Your task to perform on an android device: turn off javascript in the chrome app Image 0: 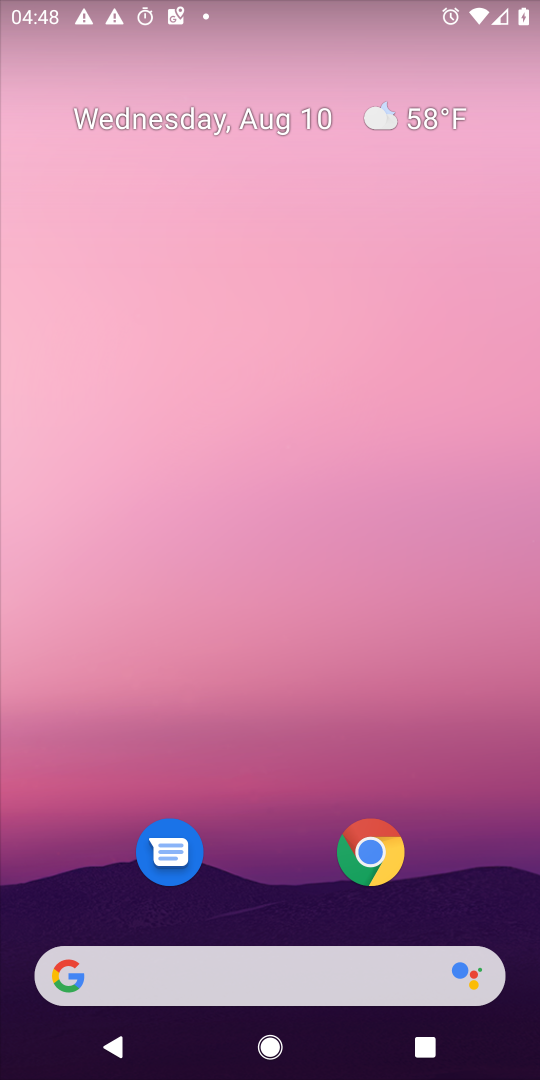
Step 0: drag from (300, 867) to (51, 289)
Your task to perform on an android device: turn off javascript in the chrome app Image 1: 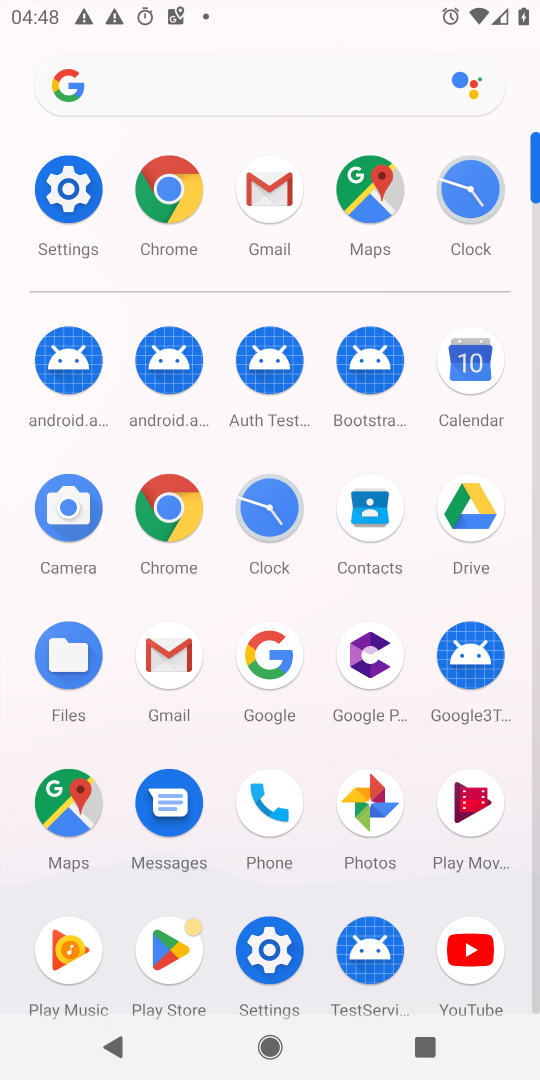
Step 1: click (153, 505)
Your task to perform on an android device: turn off javascript in the chrome app Image 2: 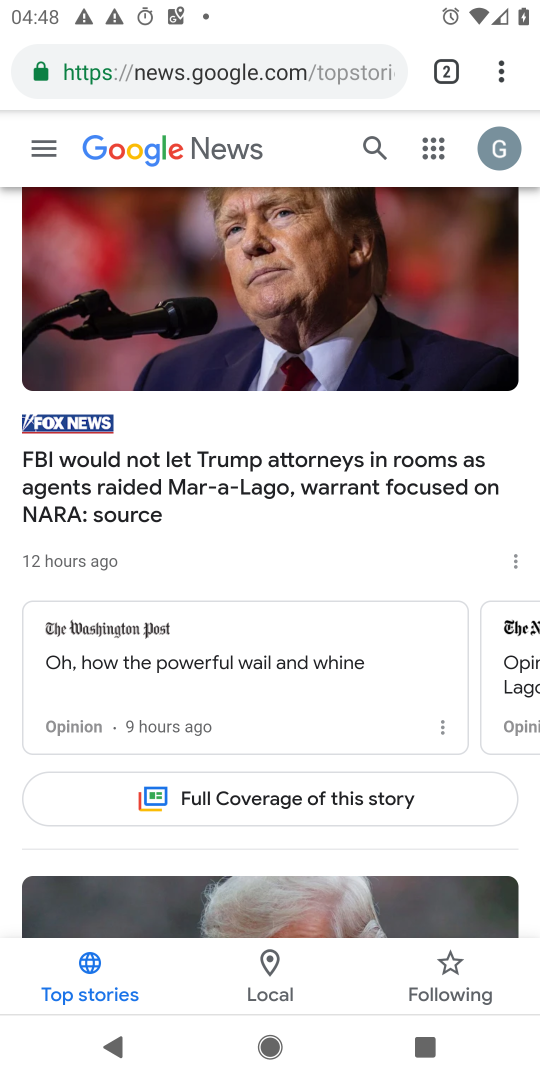
Step 2: drag from (501, 66) to (346, 872)
Your task to perform on an android device: turn off javascript in the chrome app Image 3: 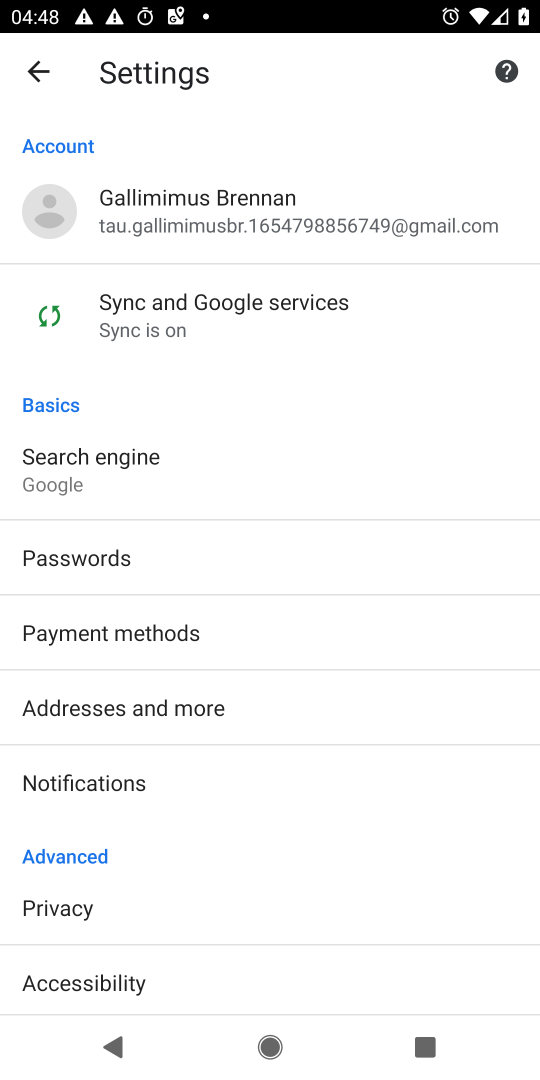
Step 3: drag from (226, 900) to (76, 418)
Your task to perform on an android device: turn off javascript in the chrome app Image 4: 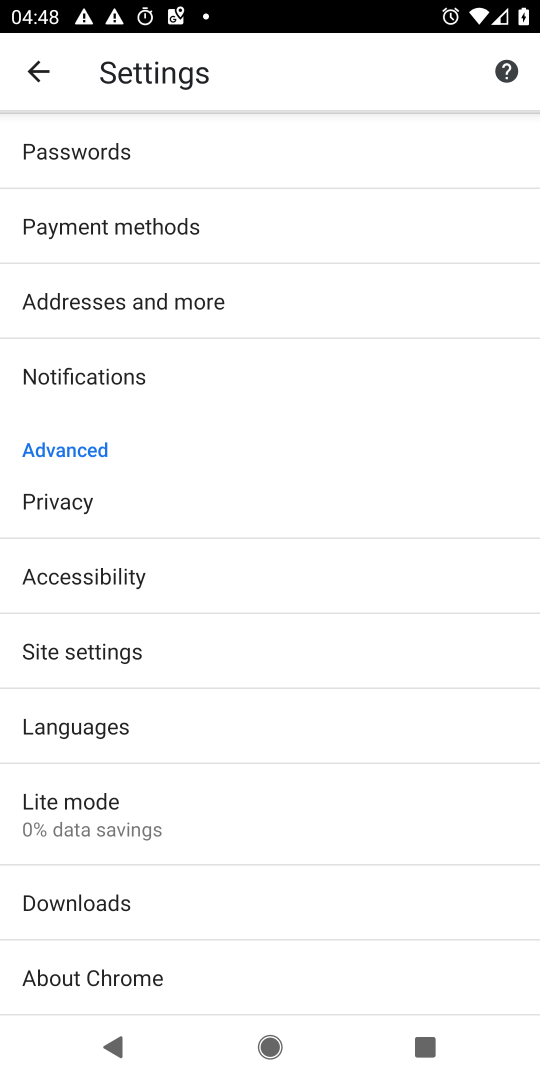
Step 4: click (76, 652)
Your task to perform on an android device: turn off javascript in the chrome app Image 5: 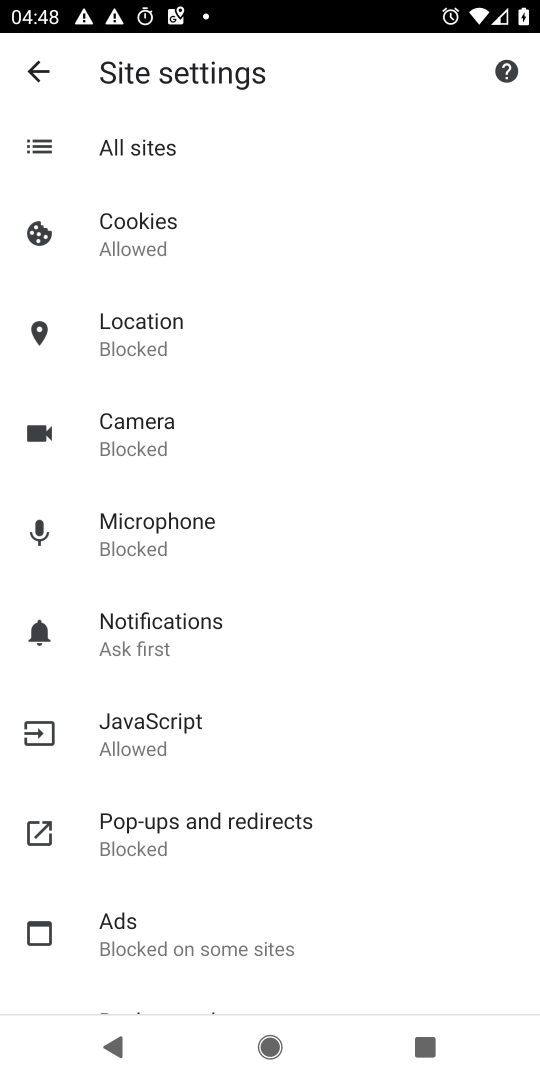
Step 5: click (130, 733)
Your task to perform on an android device: turn off javascript in the chrome app Image 6: 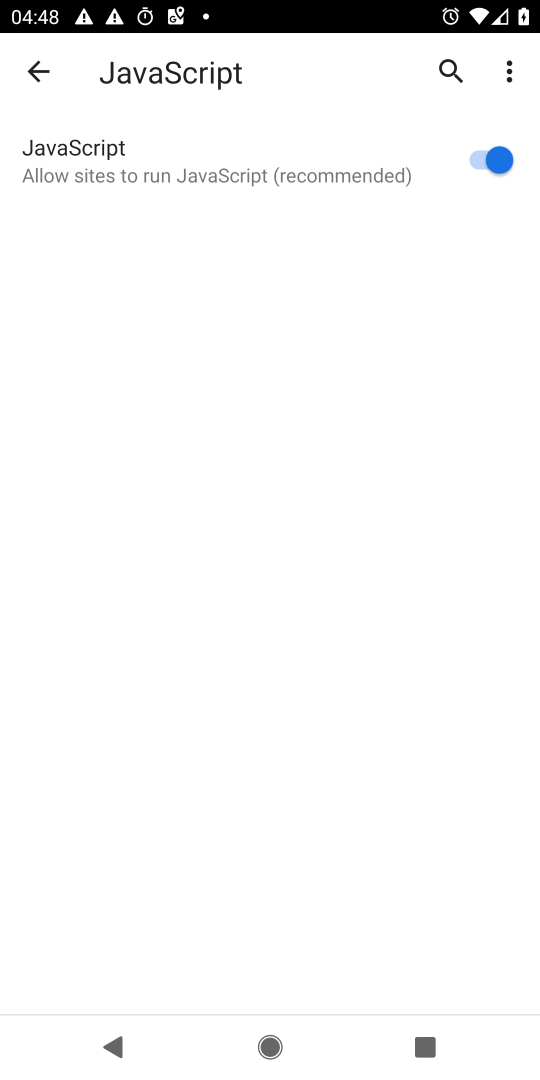
Step 6: click (478, 148)
Your task to perform on an android device: turn off javascript in the chrome app Image 7: 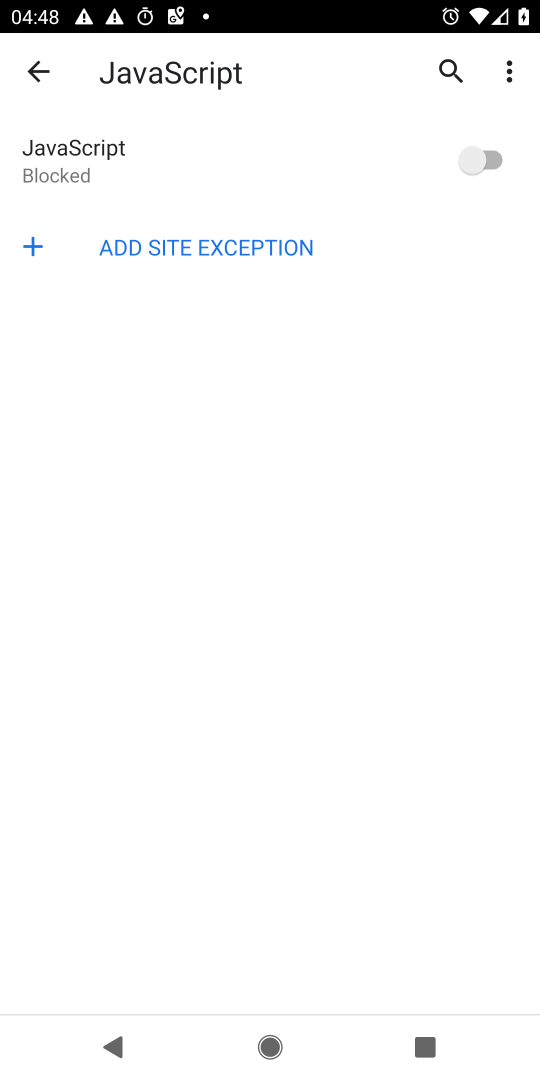
Step 7: task complete